Your task to perform on an android device: Clear the shopping cart on ebay.com. Image 0: 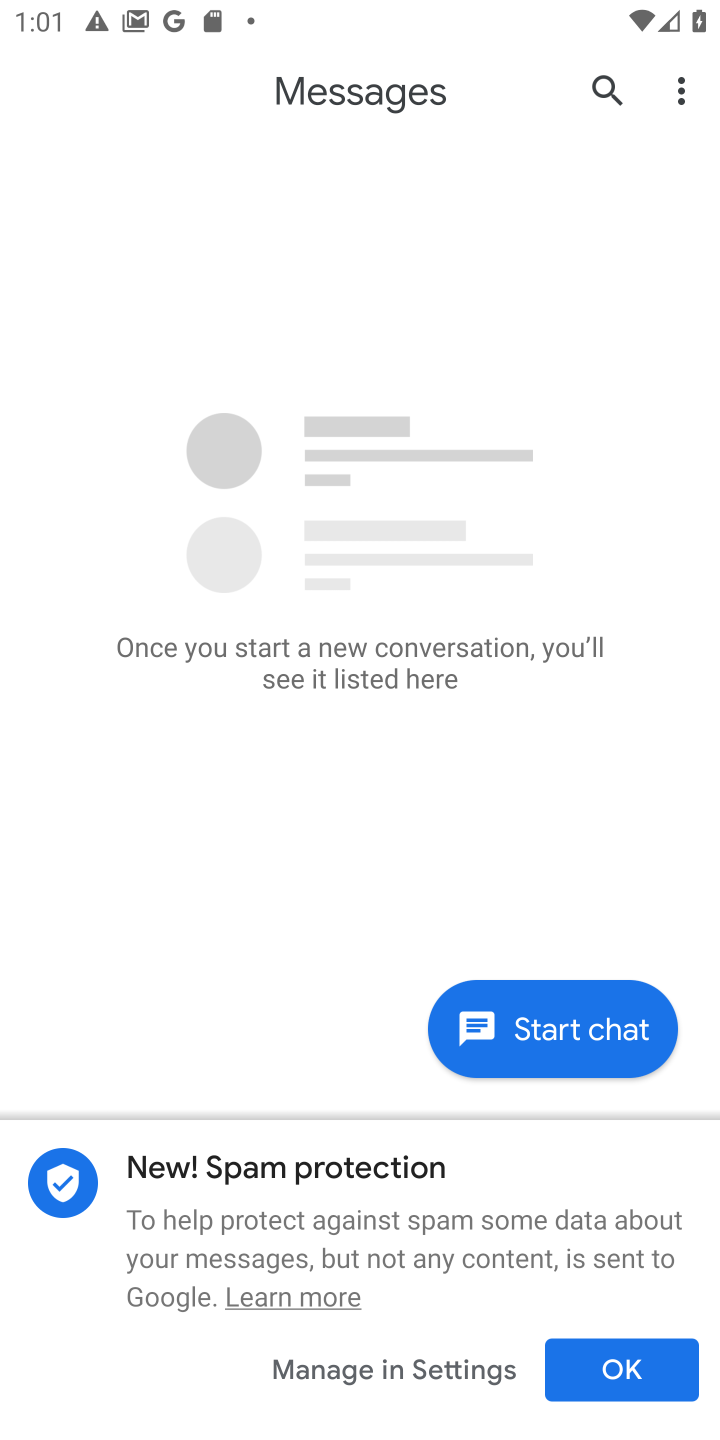
Step 0: task complete